Your task to perform on an android device: open a bookmark in the chrome app Image 0: 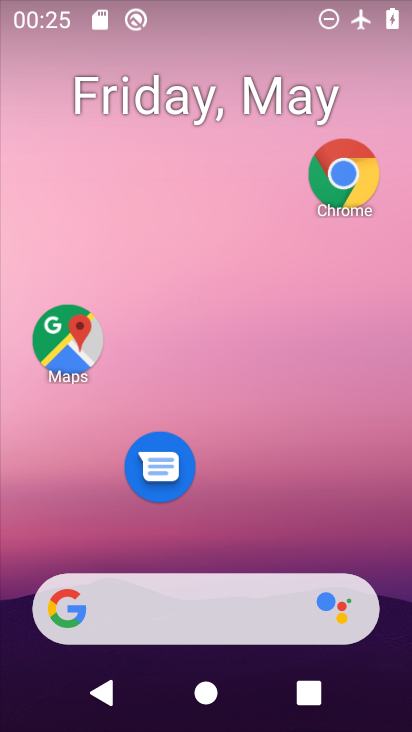
Step 0: click (363, 159)
Your task to perform on an android device: open a bookmark in the chrome app Image 1: 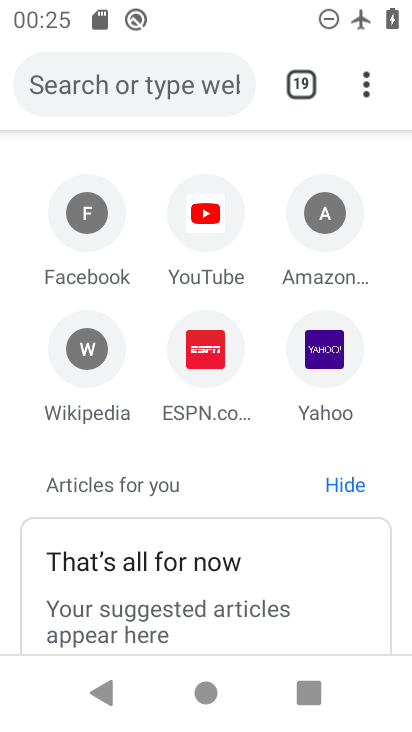
Step 1: click (352, 77)
Your task to perform on an android device: open a bookmark in the chrome app Image 2: 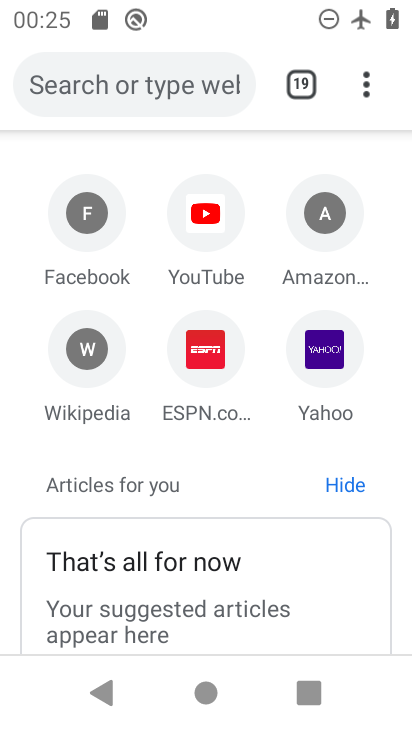
Step 2: click (384, 67)
Your task to perform on an android device: open a bookmark in the chrome app Image 3: 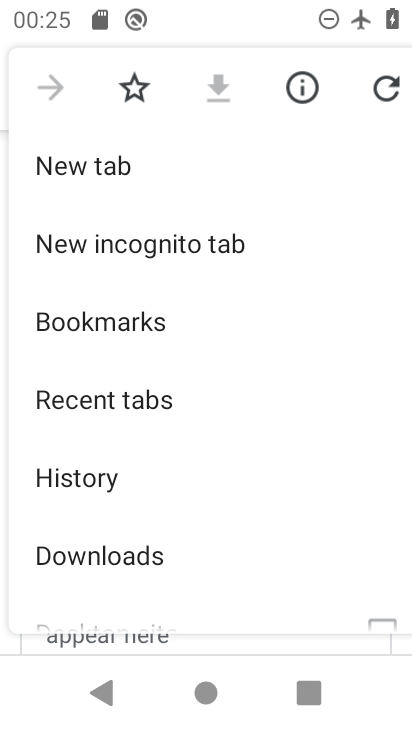
Step 3: click (156, 314)
Your task to perform on an android device: open a bookmark in the chrome app Image 4: 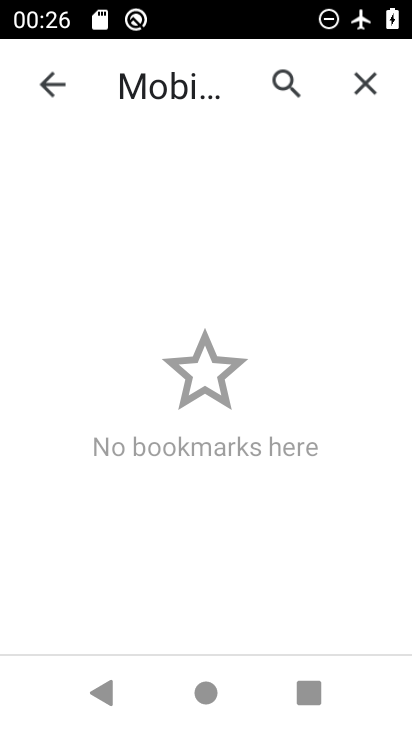
Step 4: task complete